Your task to perform on an android device: Open Google Chrome and open the bookmarks view Image 0: 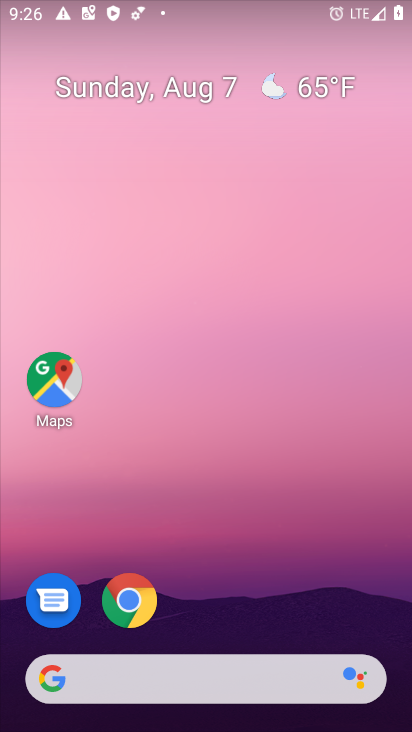
Step 0: click (127, 610)
Your task to perform on an android device: Open Google Chrome and open the bookmarks view Image 1: 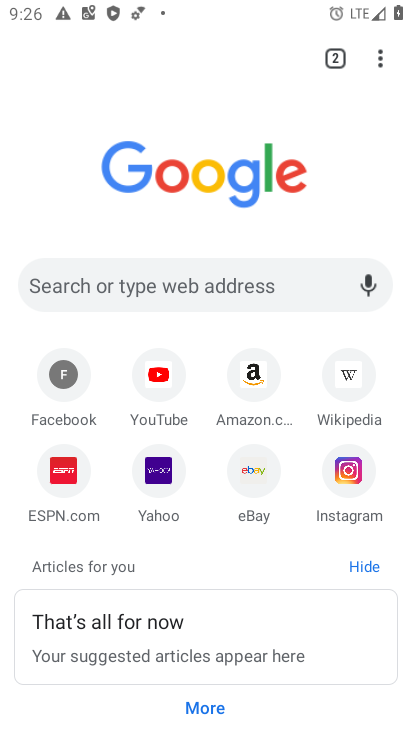
Step 1: click (379, 64)
Your task to perform on an android device: Open Google Chrome and open the bookmarks view Image 2: 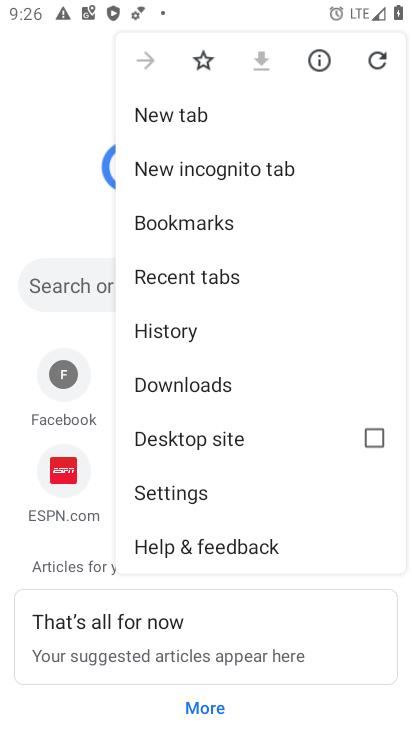
Step 2: click (216, 236)
Your task to perform on an android device: Open Google Chrome and open the bookmarks view Image 3: 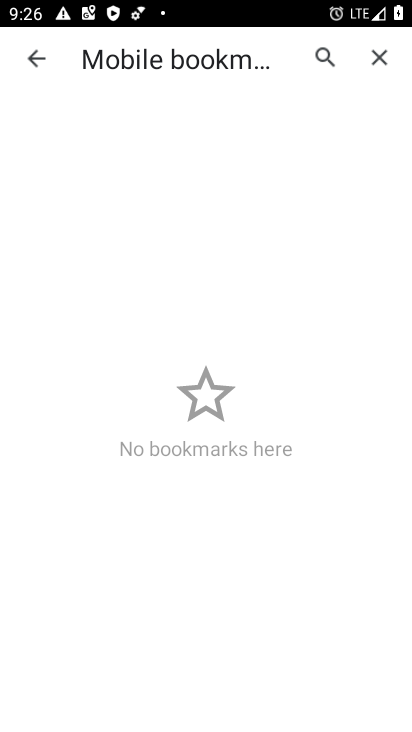
Step 3: task complete